Your task to perform on an android device: turn on data saver in the chrome app Image 0: 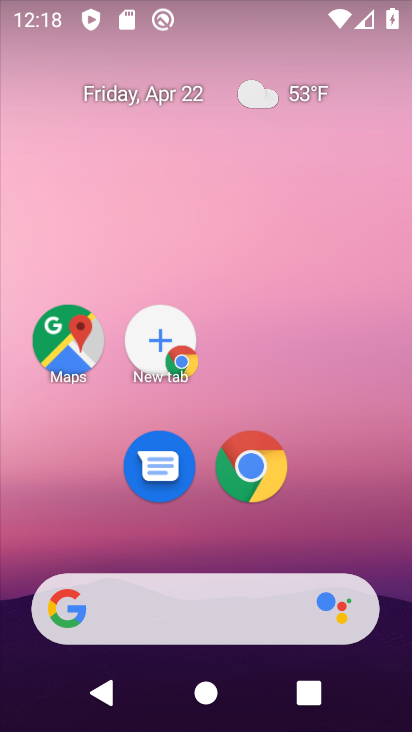
Step 0: drag from (386, 650) to (305, 11)
Your task to perform on an android device: turn on data saver in the chrome app Image 1: 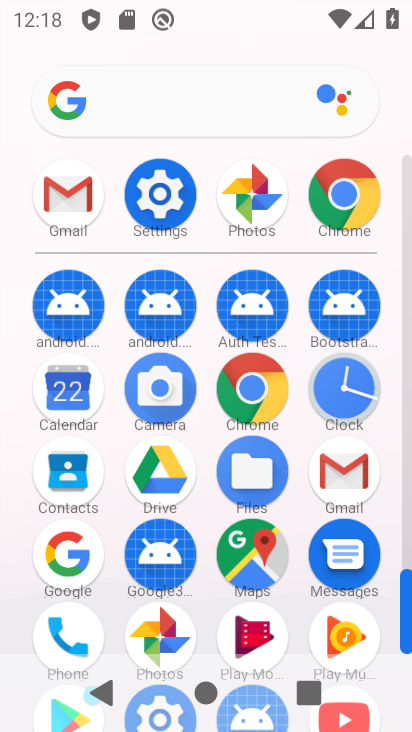
Step 1: click (341, 195)
Your task to perform on an android device: turn on data saver in the chrome app Image 2: 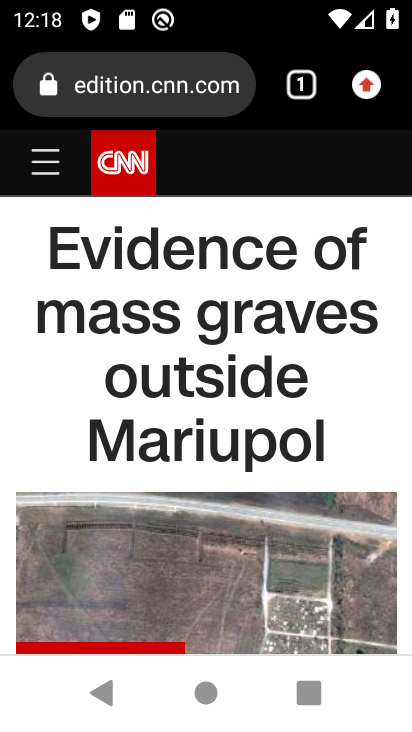
Step 2: drag from (372, 83) to (109, 523)
Your task to perform on an android device: turn on data saver in the chrome app Image 3: 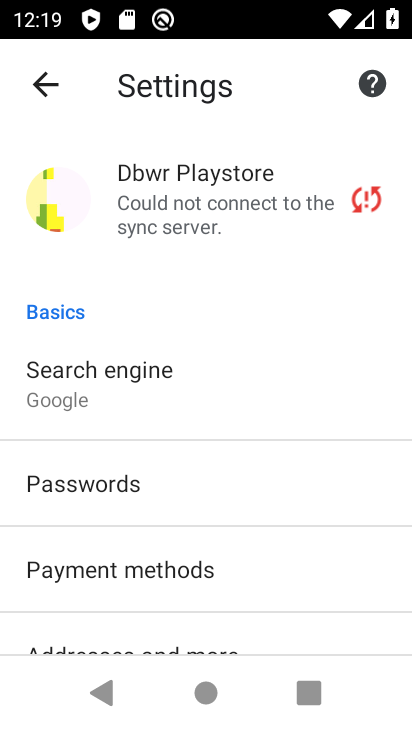
Step 3: drag from (263, 539) to (236, 234)
Your task to perform on an android device: turn on data saver in the chrome app Image 4: 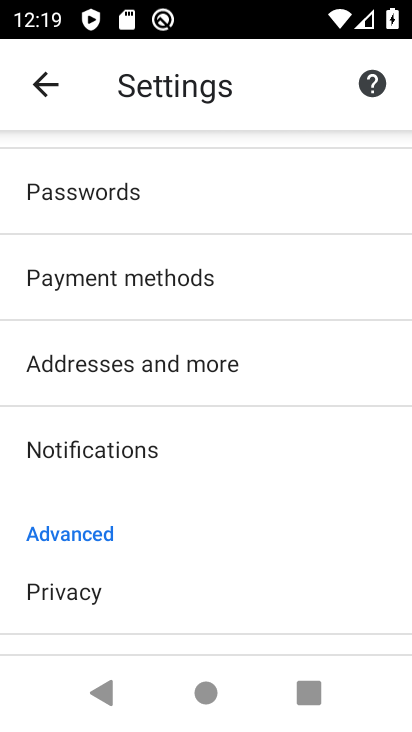
Step 4: drag from (174, 532) to (173, 197)
Your task to perform on an android device: turn on data saver in the chrome app Image 5: 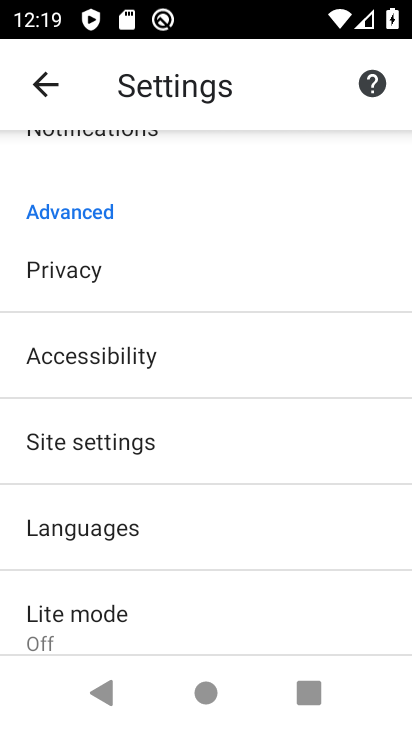
Step 5: click (102, 616)
Your task to perform on an android device: turn on data saver in the chrome app Image 6: 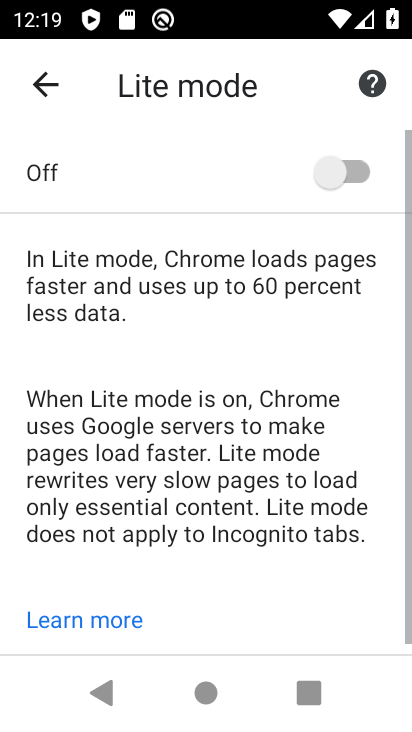
Step 6: click (336, 160)
Your task to perform on an android device: turn on data saver in the chrome app Image 7: 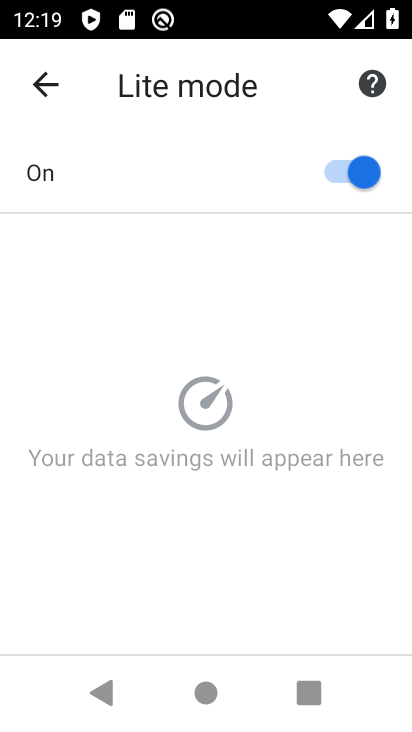
Step 7: task complete